Your task to perform on an android device: turn off javascript in the chrome app Image 0: 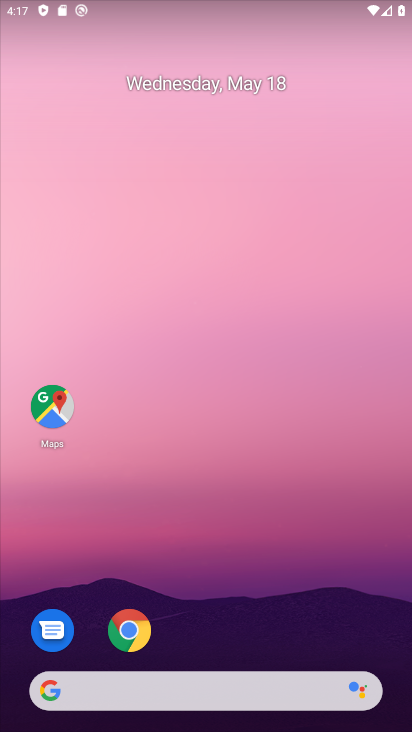
Step 0: click (130, 644)
Your task to perform on an android device: turn off javascript in the chrome app Image 1: 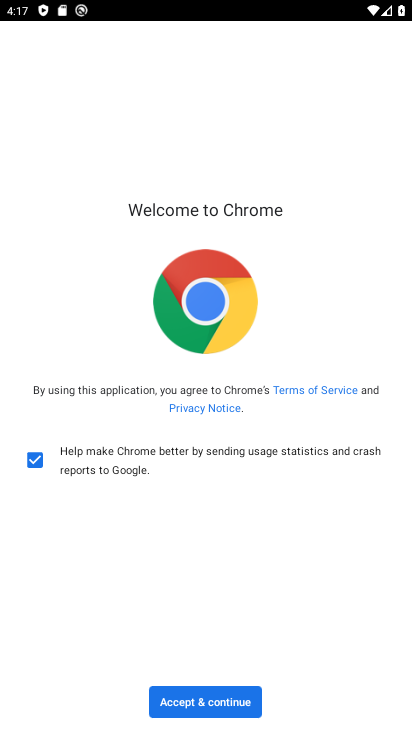
Step 1: click (238, 689)
Your task to perform on an android device: turn off javascript in the chrome app Image 2: 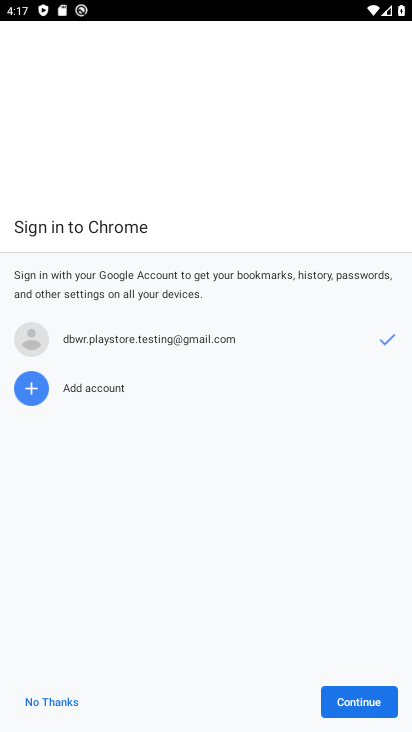
Step 2: click (351, 696)
Your task to perform on an android device: turn off javascript in the chrome app Image 3: 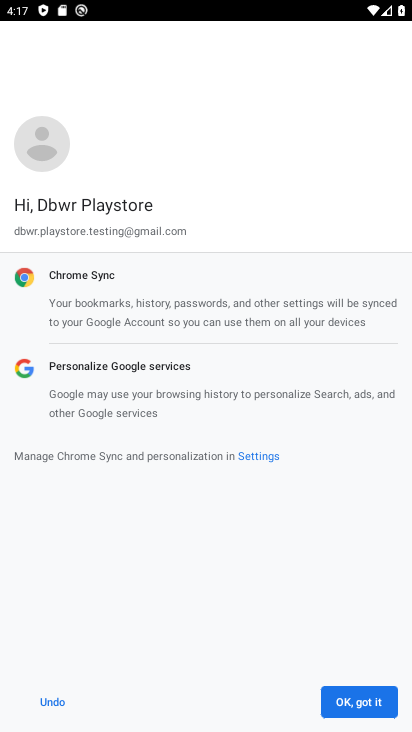
Step 3: click (355, 701)
Your task to perform on an android device: turn off javascript in the chrome app Image 4: 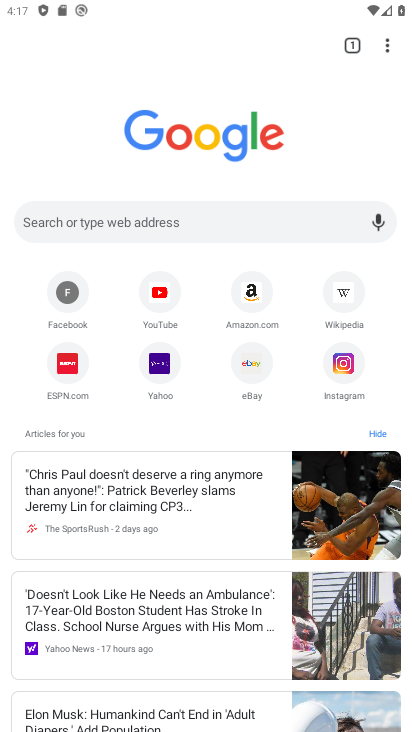
Step 4: click (385, 53)
Your task to perform on an android device: turn off javascript in the chrome app Image 5: 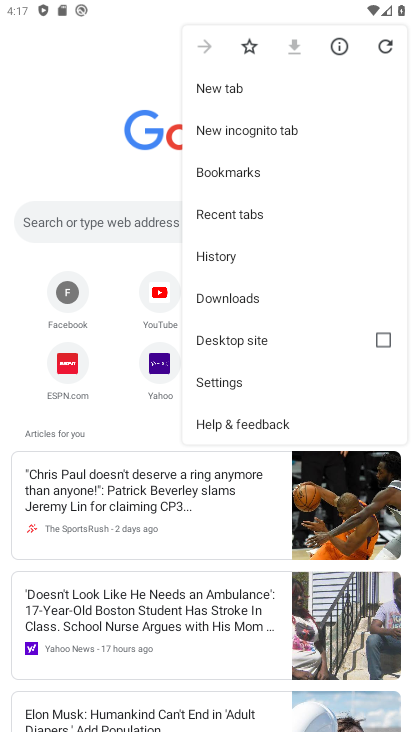
Step 5: click (220, 372)
Your task to perform on an android device: turn off javascript in the chrome app Image 6: 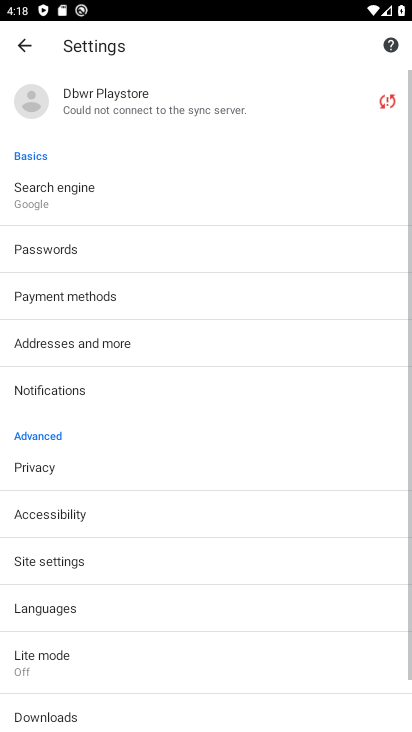
Step 6: drag from (81, 631) to (79, 323)
Your task to perform on an android device: turn off javascript in the chrome app Image 7: 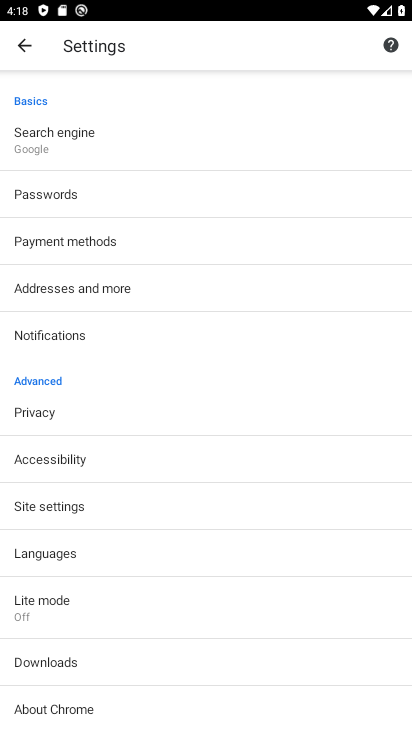
Step 7: click (41, 499)
Your task to perform on an android device: turn off javascript in the chrome app Image 8: 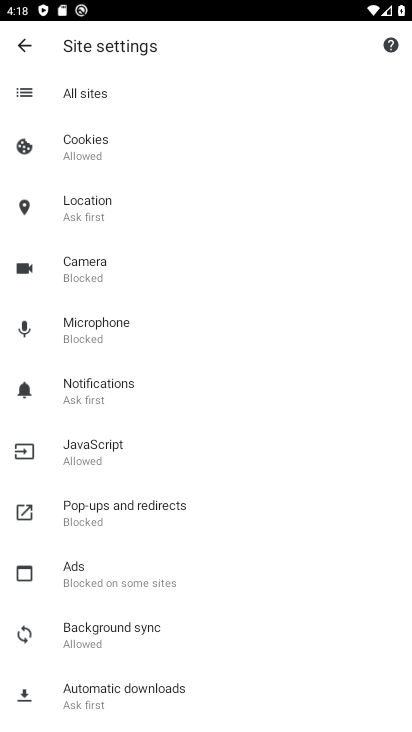
Step 8: click (94, 447)
Your task to perform on an android device: turn off javascript in the chrome app Image 9: 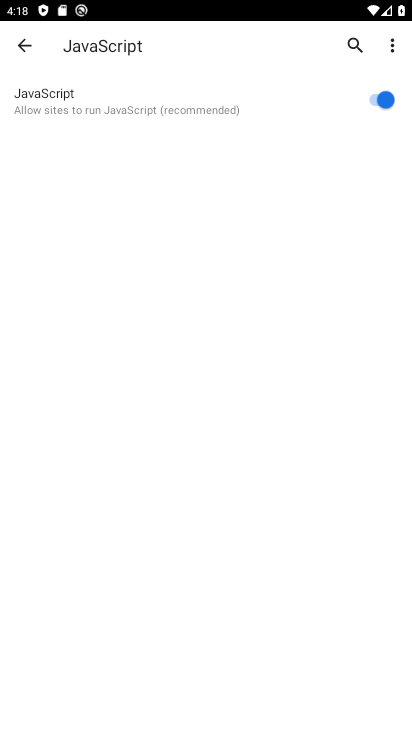
Step 9: click (371, 98)
Your task to perform on an android device: turn off javascript in the chrome app Image 10: 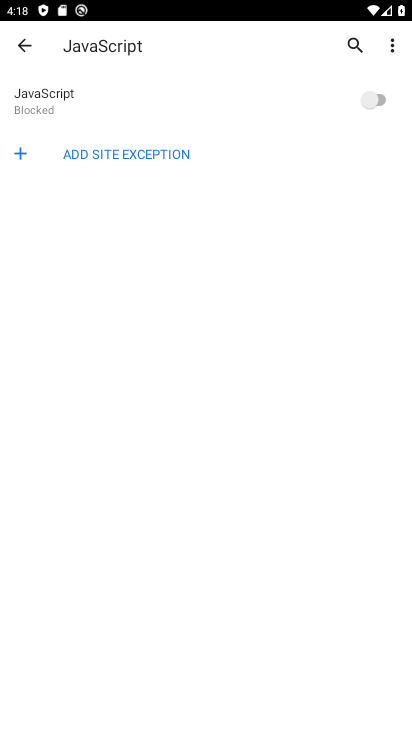
Step 10: task complete